Your task to perform on an android device: Set the phone to "Do not disturb". Image 0: 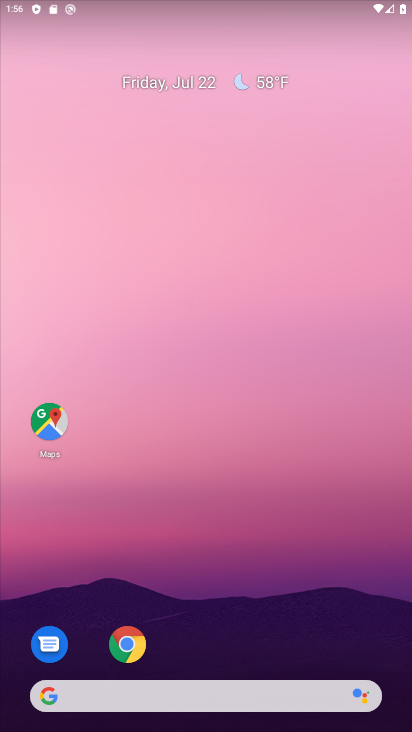
Step 0: drag from (223, 634) to (230, 229)
Your task to perform on an android device: Set the phone to "Do not disturb". Image 1: 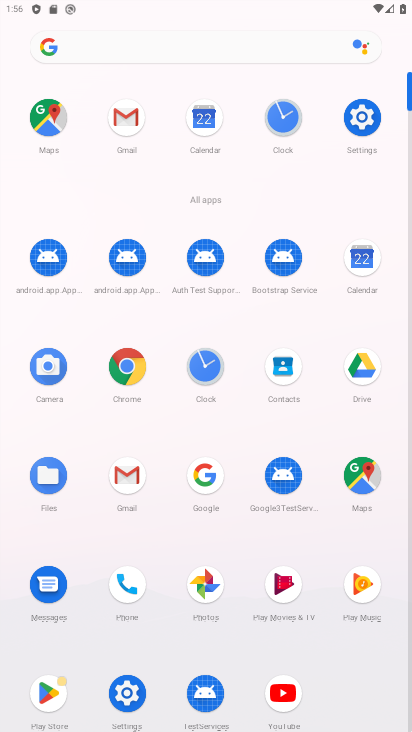
Step 1: click (342, 127)
Your task to perform on an android device: Set the phone to "Do not disturb". Image 2: 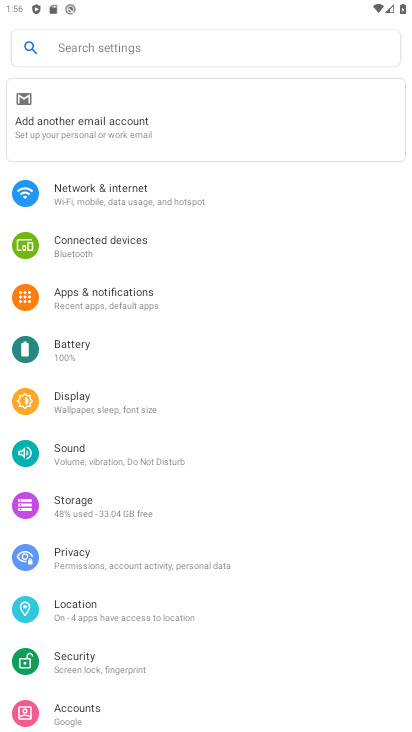
Step 2: click (102, 466)
Your task to perform on an android device: Set the phone to "Do not disturb". Image 3: 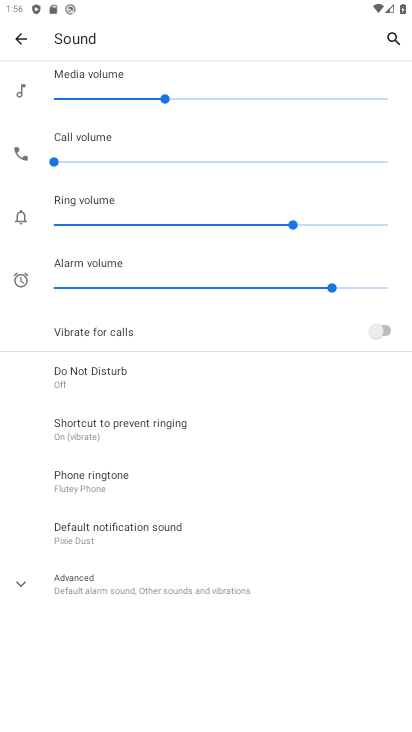
Step 3: click (128, 393)
Your task to perform on an android device: Set the phone to "Do not disturb". Image 4: 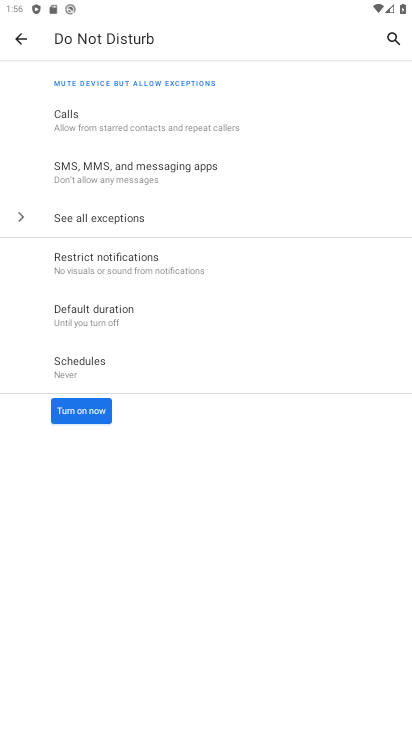
Step 4: click (103, 417)
Your task to perform on an android device: Set the phone to "Do not disturb". Image 5: 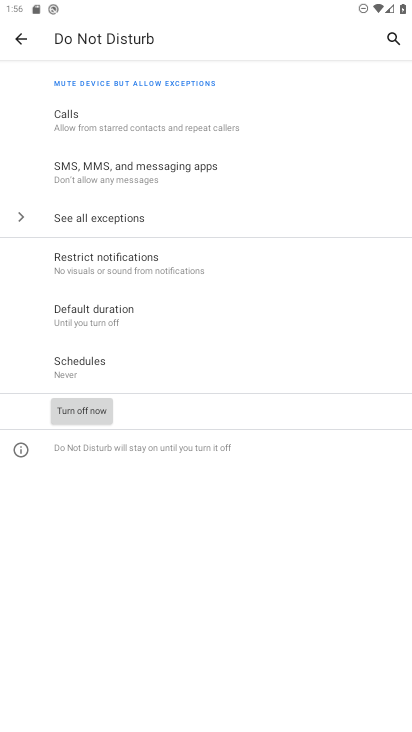
Step 5: task complete